Your task to perform on an android device: set the timer Image 0: 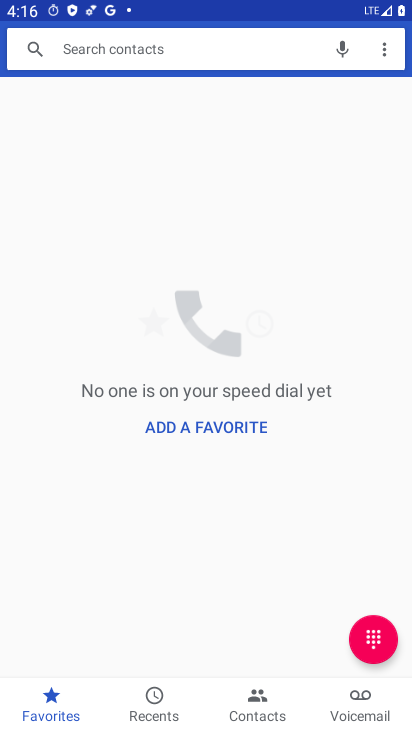
Step 0: press home button
Your task to perform on an android device: set the timer Image 1: 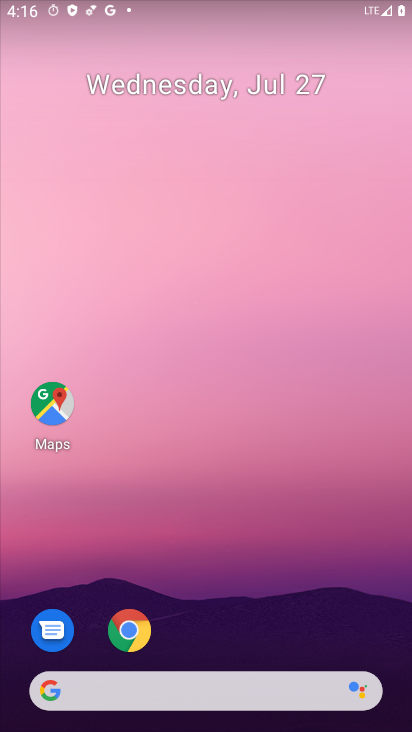
Step 1: drag from (258, 605) to (245, 258)
Your task to perform on an android device: set the timer Image 2: 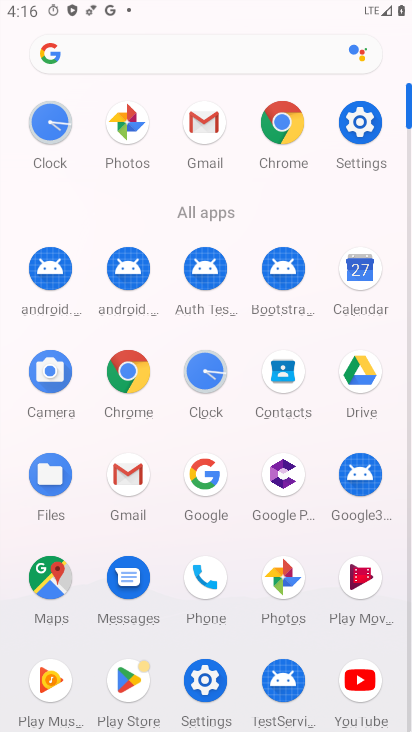
Step 2: click (215, 383)
Your task to perform on an android device: set the timer Image 3: 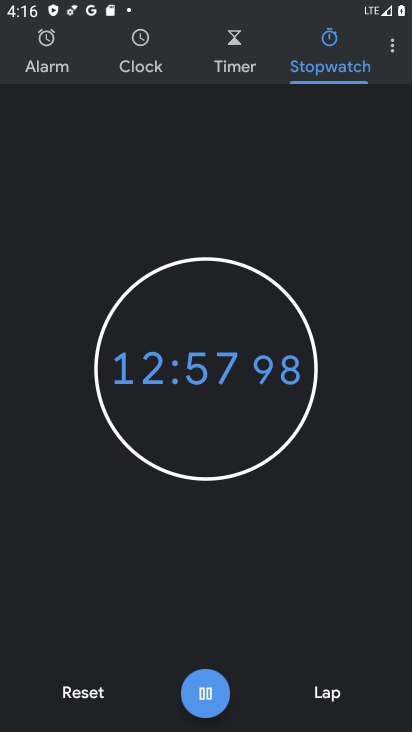
Step 3: click (69, 708)
Your task to perform on an android device: set the timer Image 4: 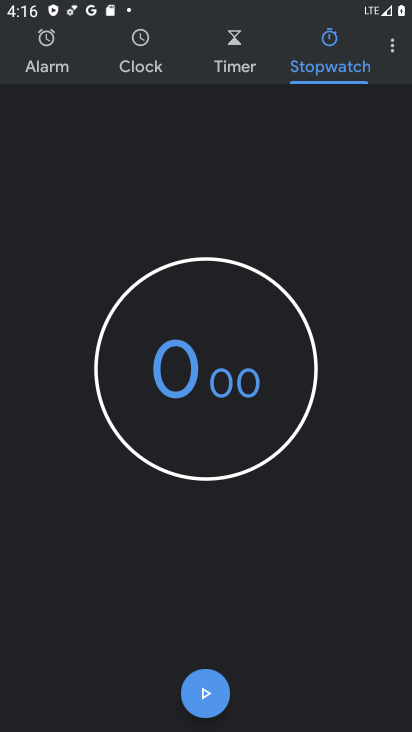
Step 4: click (243, 50)
Your task to perform on an android device: set the timer Image 5: 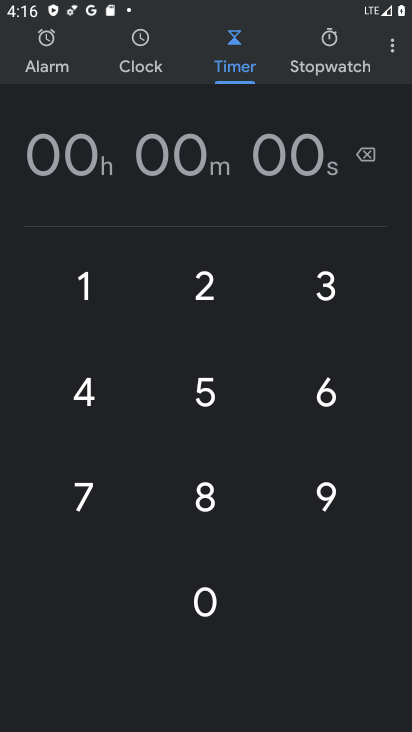
Step 5: click (93, 394)
Your task to perform on an android device: set the timer Image 6: 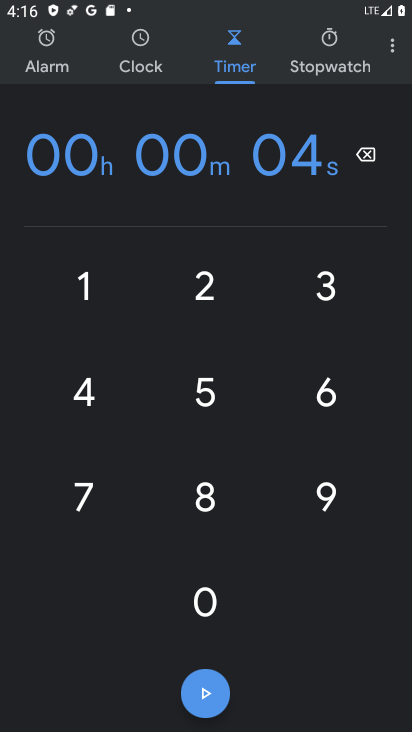
Step 6: click (210, 296)
Your task to perform on an android device: set the timer Image 7: 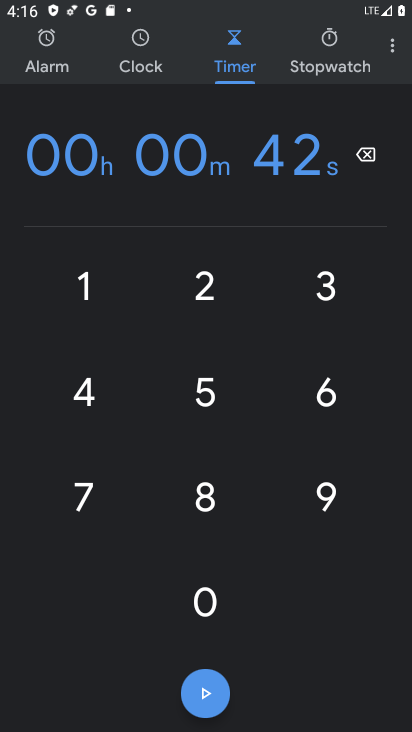
Step 7: click (341, 397)
Your task to perform on an android device: set the timer Image 8: 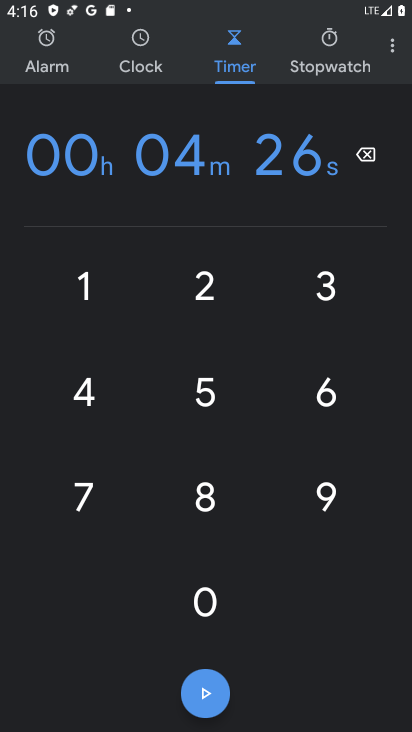
Step 8: click (220, 688)
Your task to perform on an android device: set the timer Image 9: 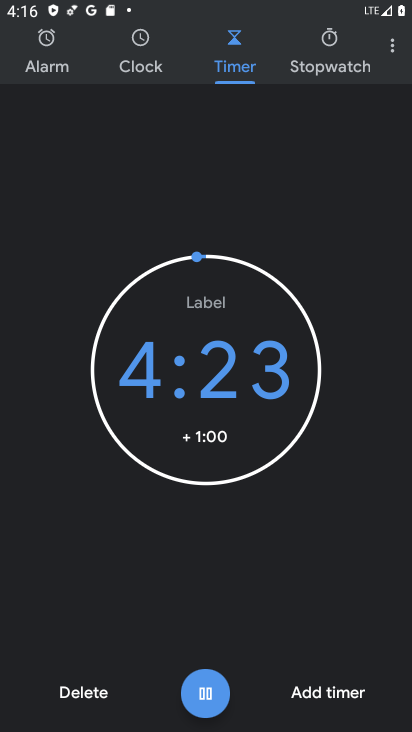
Step 9: task complete